Your task to perform on an android device: change alarm snooze length Image 0: 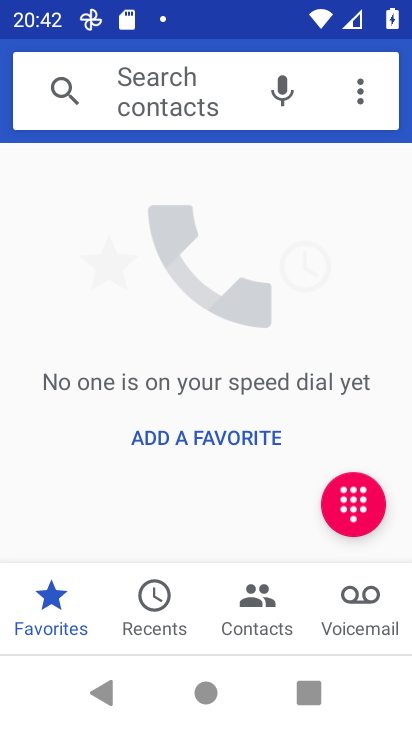
Step 0: task complete